Your task to perform on an android device: turn pop-ups on in chrome Image 0: 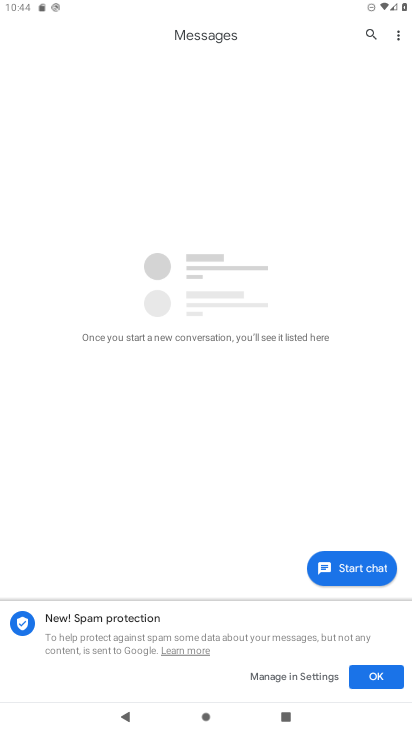
Step 0: press home button
Your task to perform on an android device: turn pop-ups on in chrome Image 1: 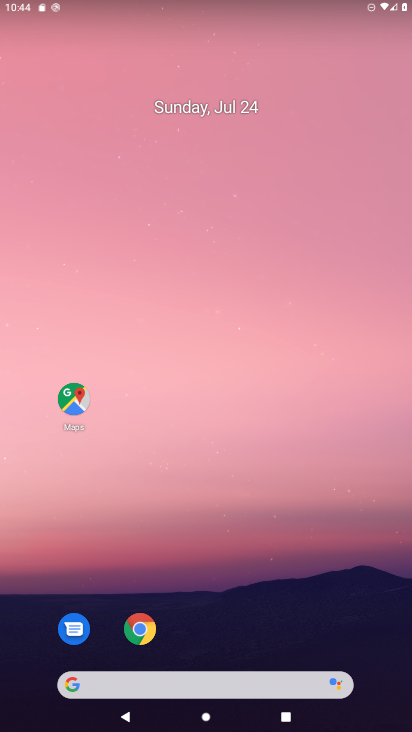
Step 1: click (141, 634)
Your task to perform on an android device: turn pop-ups on in chrome Image 2: 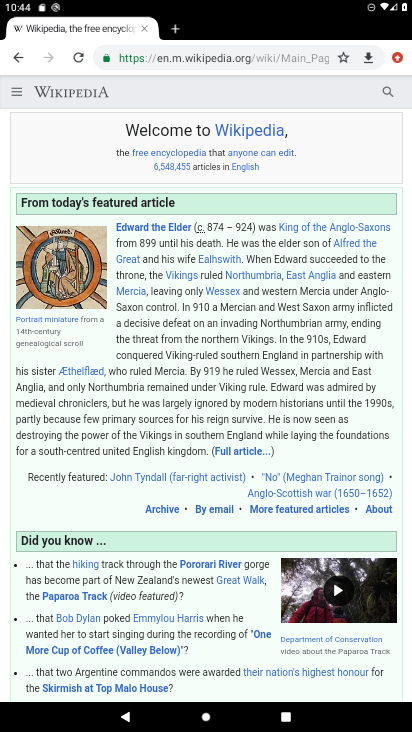
Step 2: click (397, 58)
Your task to perform on an android device: turn pop-ups on in chrome Image 3: 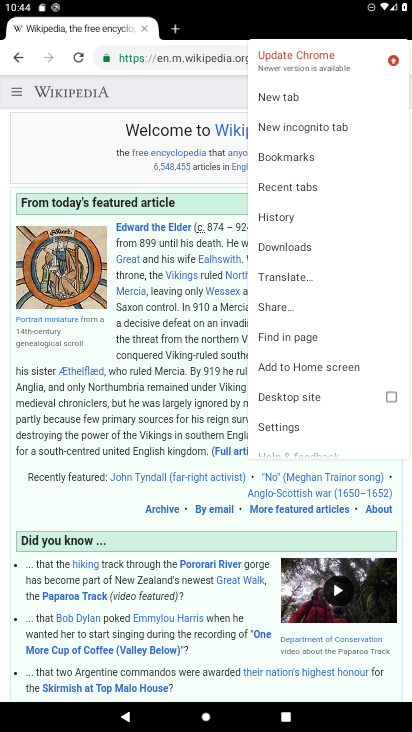
Step 3: click (296, 429)
Your task to perform on an android device: turn pop-ups on in chrome Image 4: 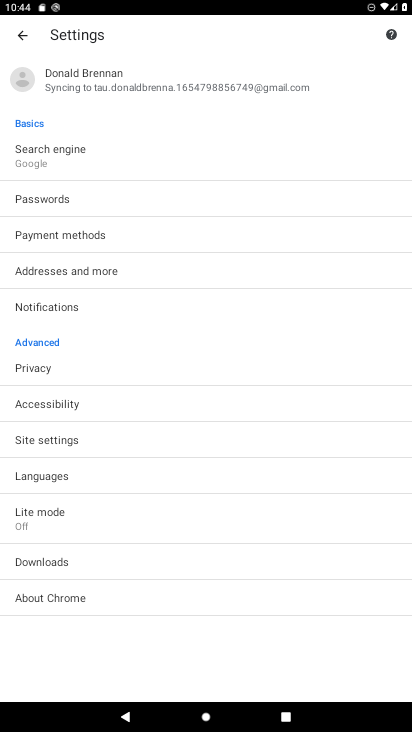
Step 4: click (81, 437)
Your task to perform on an android device: turn pop-ups on in chrome Image 5: 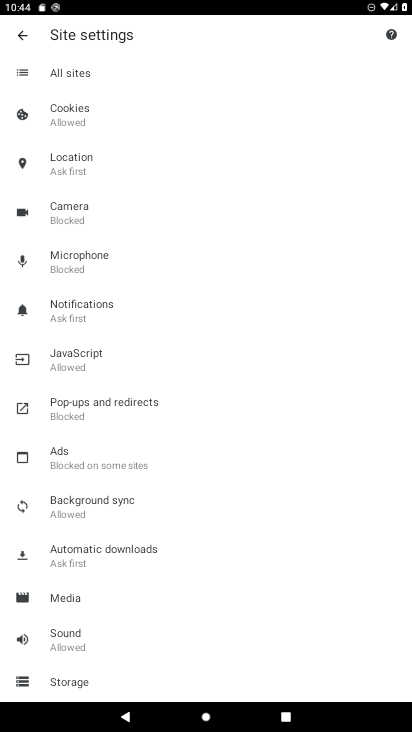
Step 5: click (69, 399)
Your task to perform on an android device: turn pop-ups on in chrome Image 6: 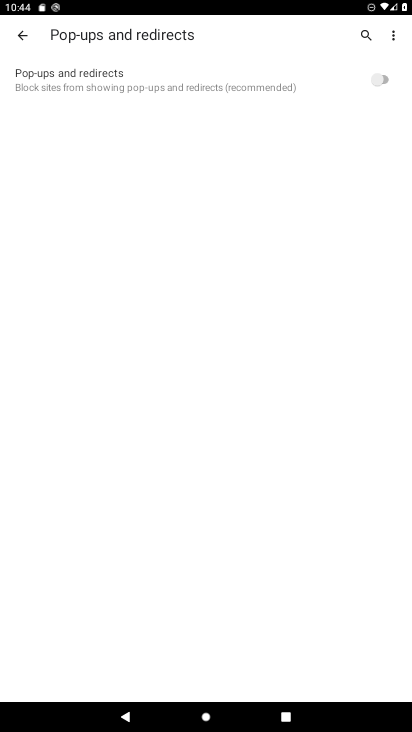
Step 6: click (380, 61)
Your task to perform on an android device: turn pop-ups on in chrome Image 7: 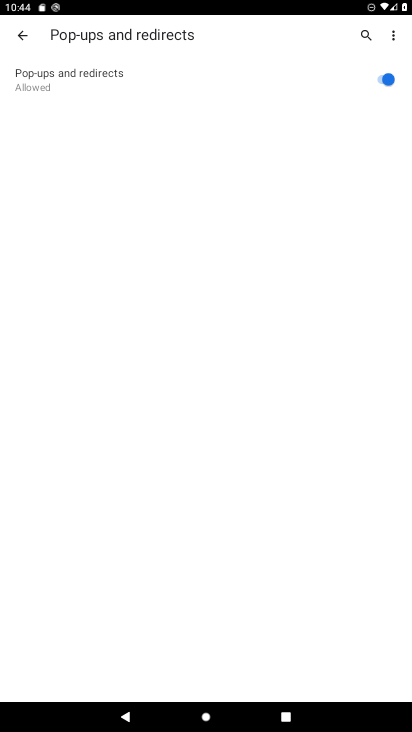
Step 7: task complete